Your task to perform on an android device: remove spam from my inbox in the gmail app Image 0: 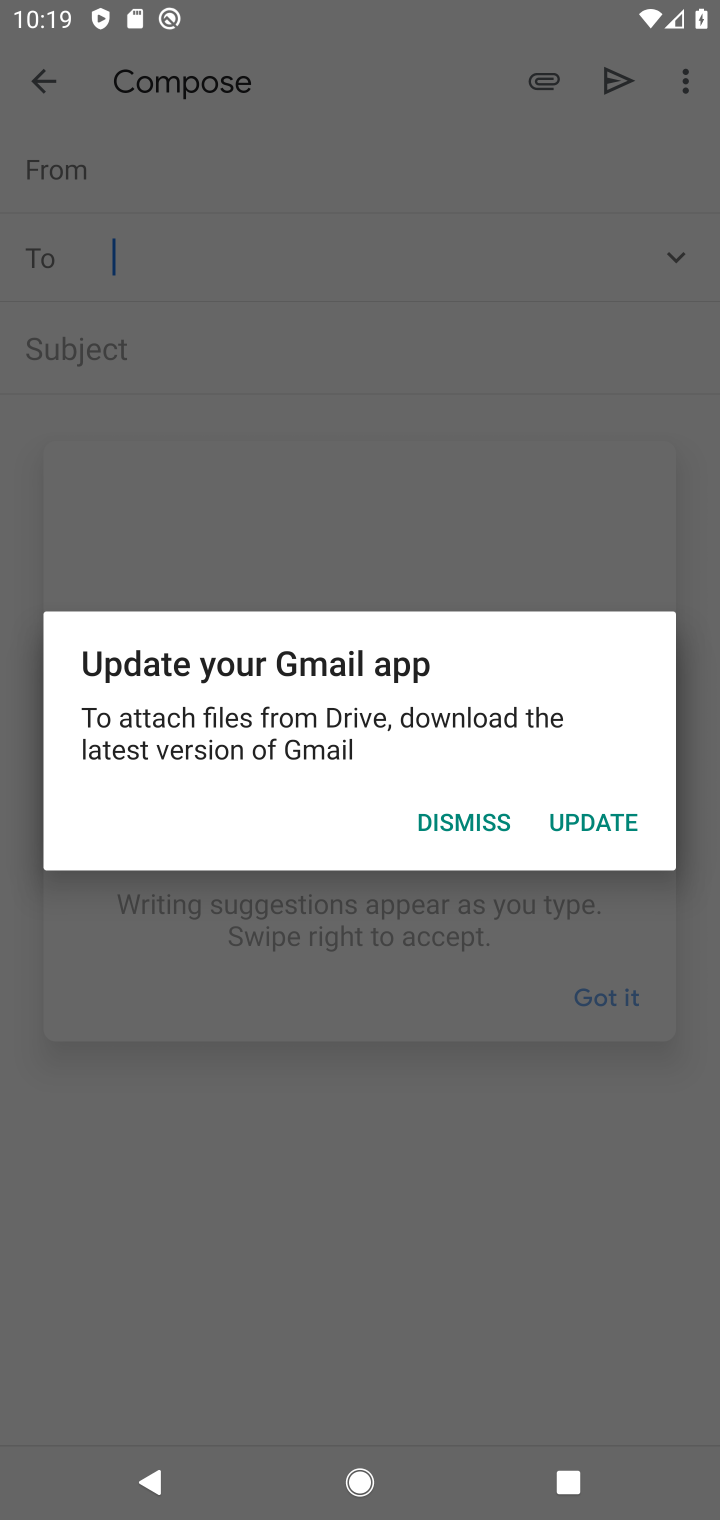
Step 0: click (463, 832)
Your task to perform on an android device: remove spam from my inbox in the gmail app Image 1: 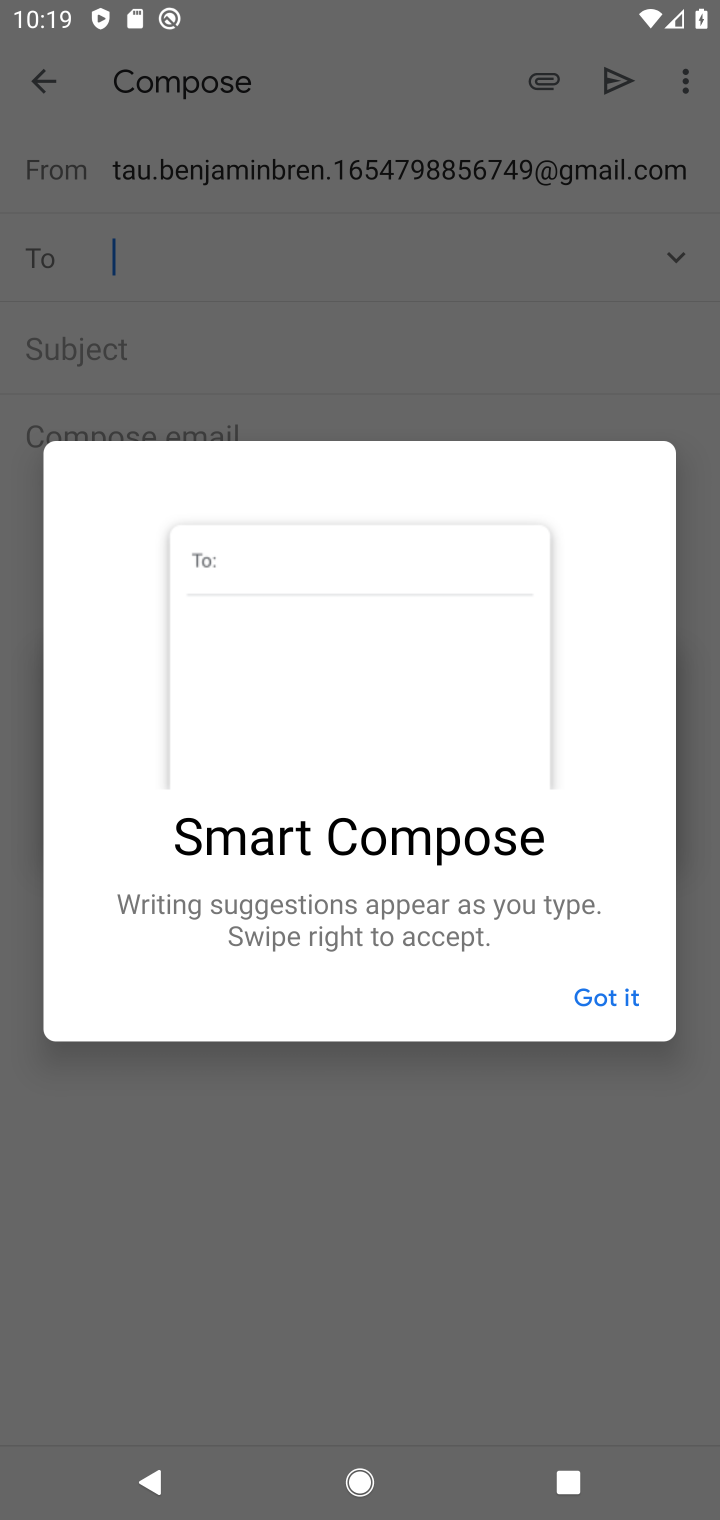
Step 1: press back button
Your task to perform on an android device: remove spam from my inbox in the gmail app Image 2: 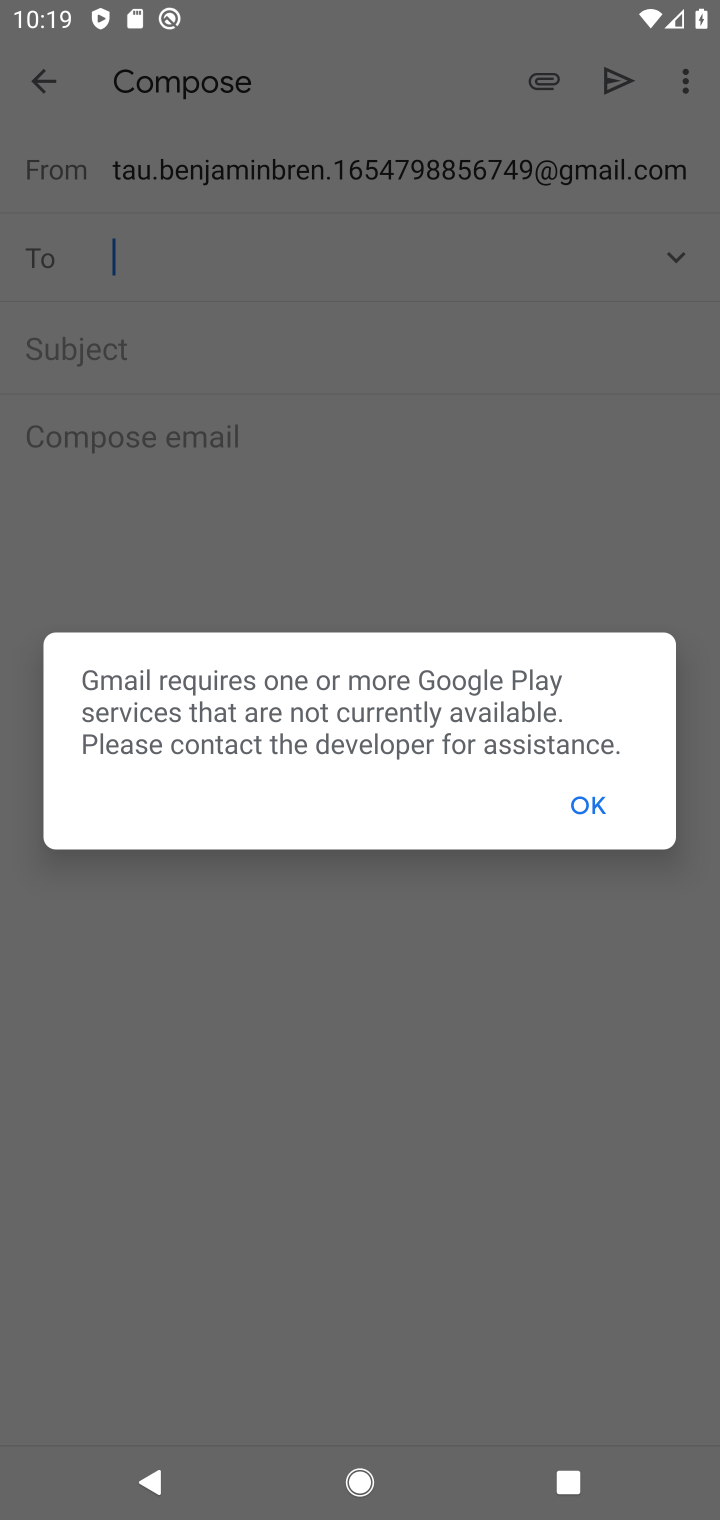
Step 2: press home button
Your task to perform on an android device: remove spam from my inbox in the gmail app Image 3: 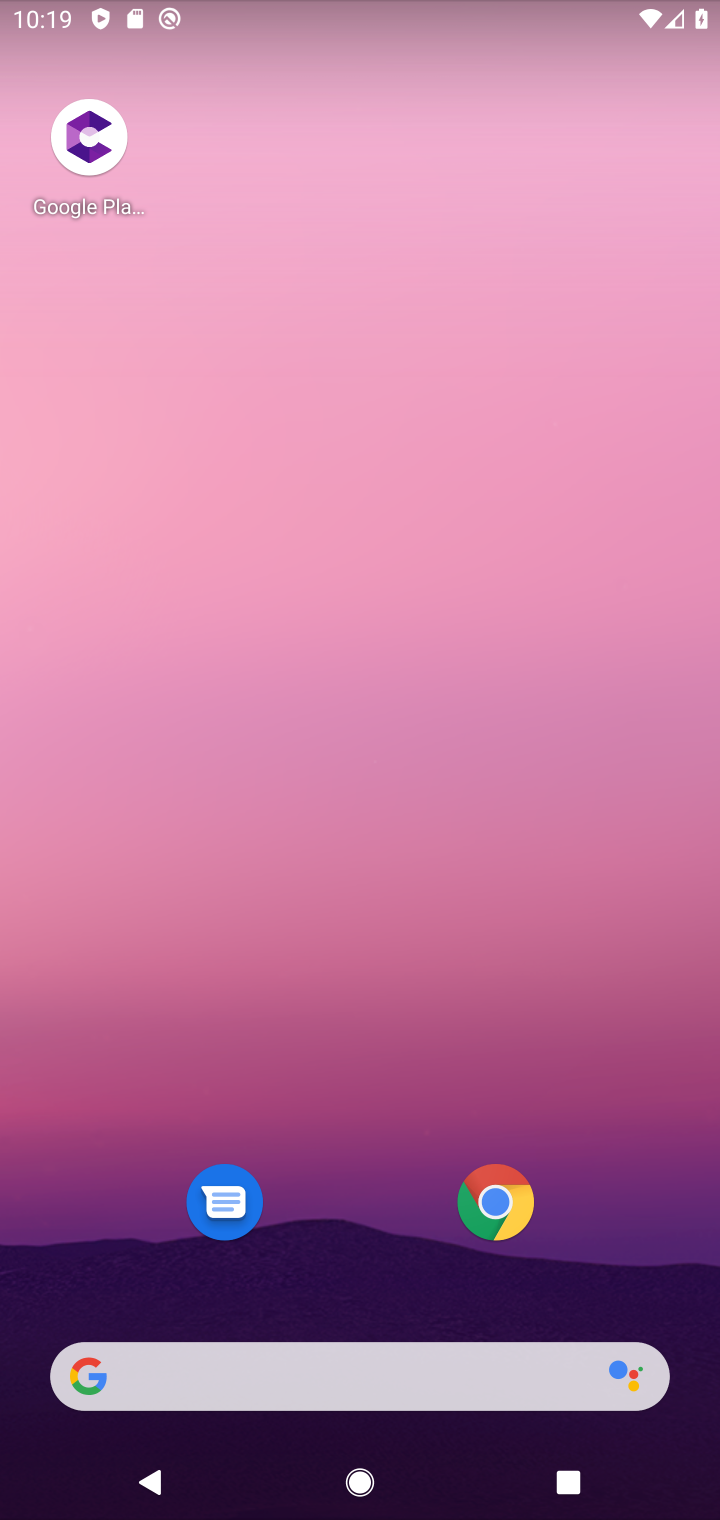
Step 3: drag from (372, 1200) to (566, 91)
Your task to perform on an android device: remove spam from my inbox in the gmail app Image 4: 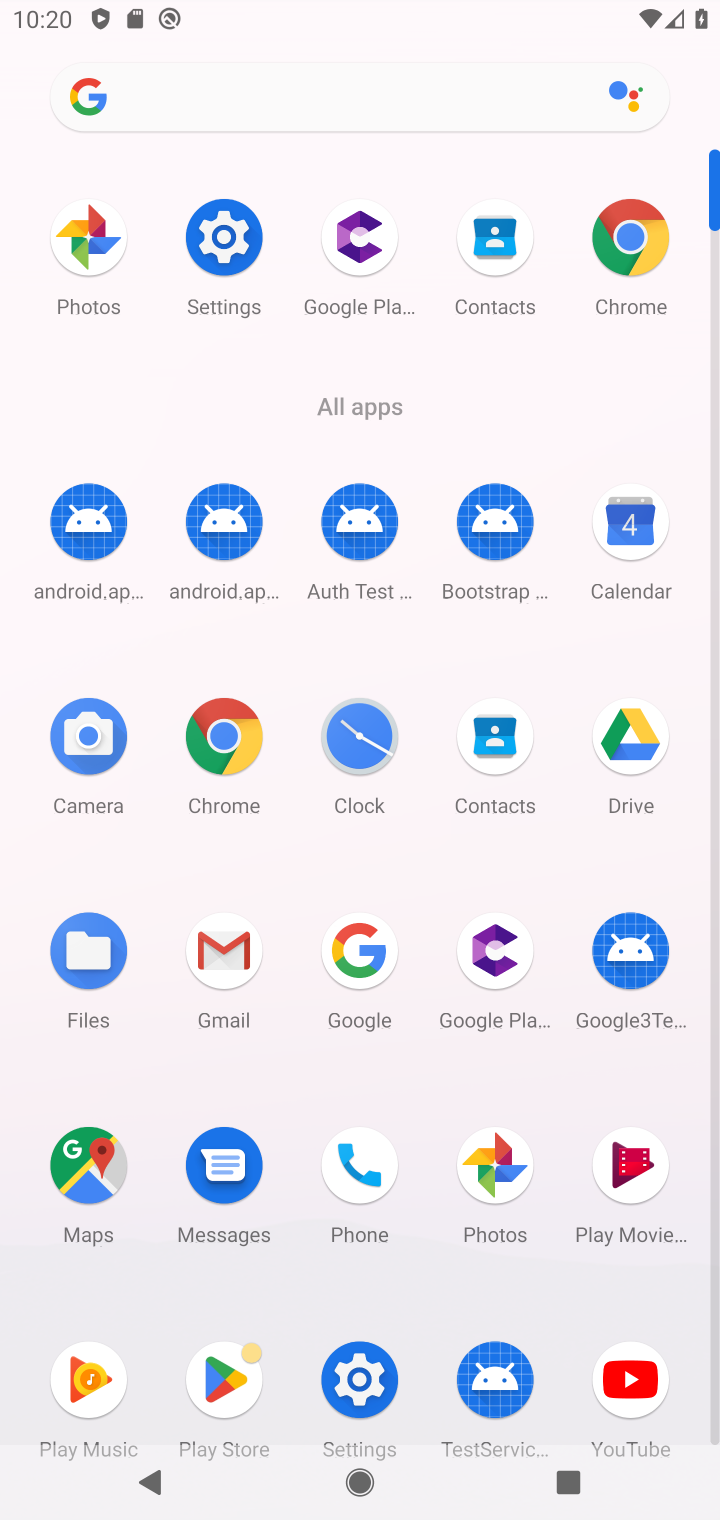
Step 4: click (206, 937)
Your task to perform on an android device: remove spam from my inbox in the gmail app Image 5: 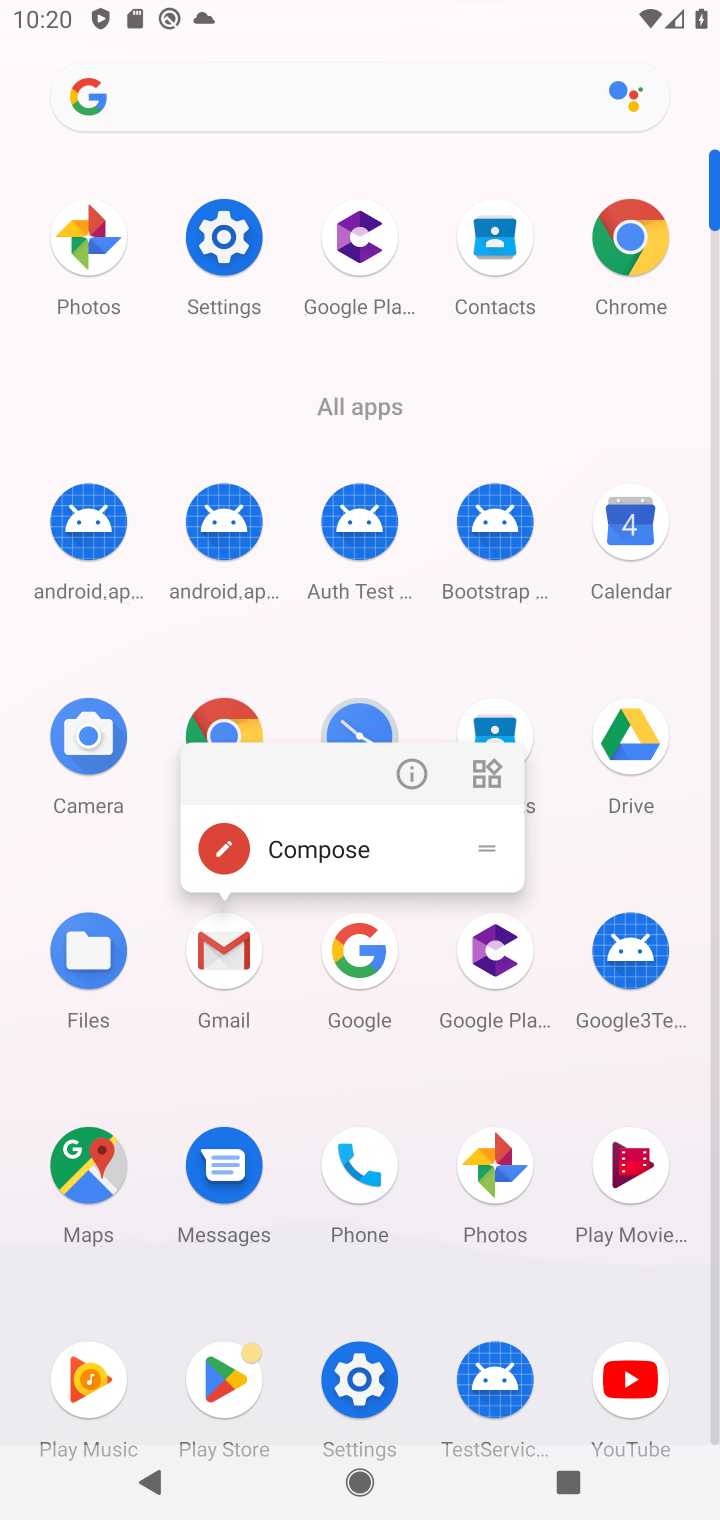
Step 5: click (205, 965)
Your task to perform on an android device: remove spam from my inbox in the gmail app Image 6: 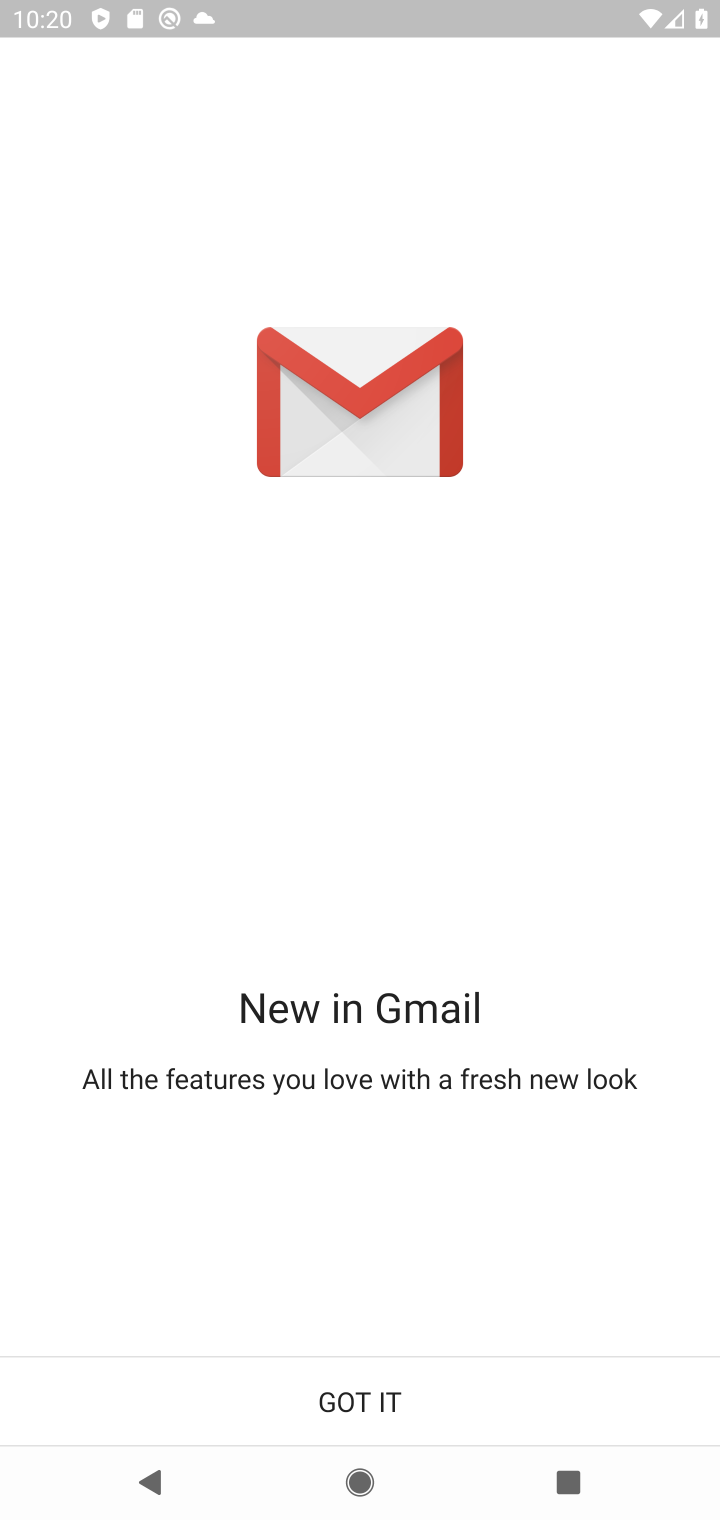
Step 6: click (360, 1394)
Your task to perform on an android device: remove spam from my inbox in the gmail app Image 7: 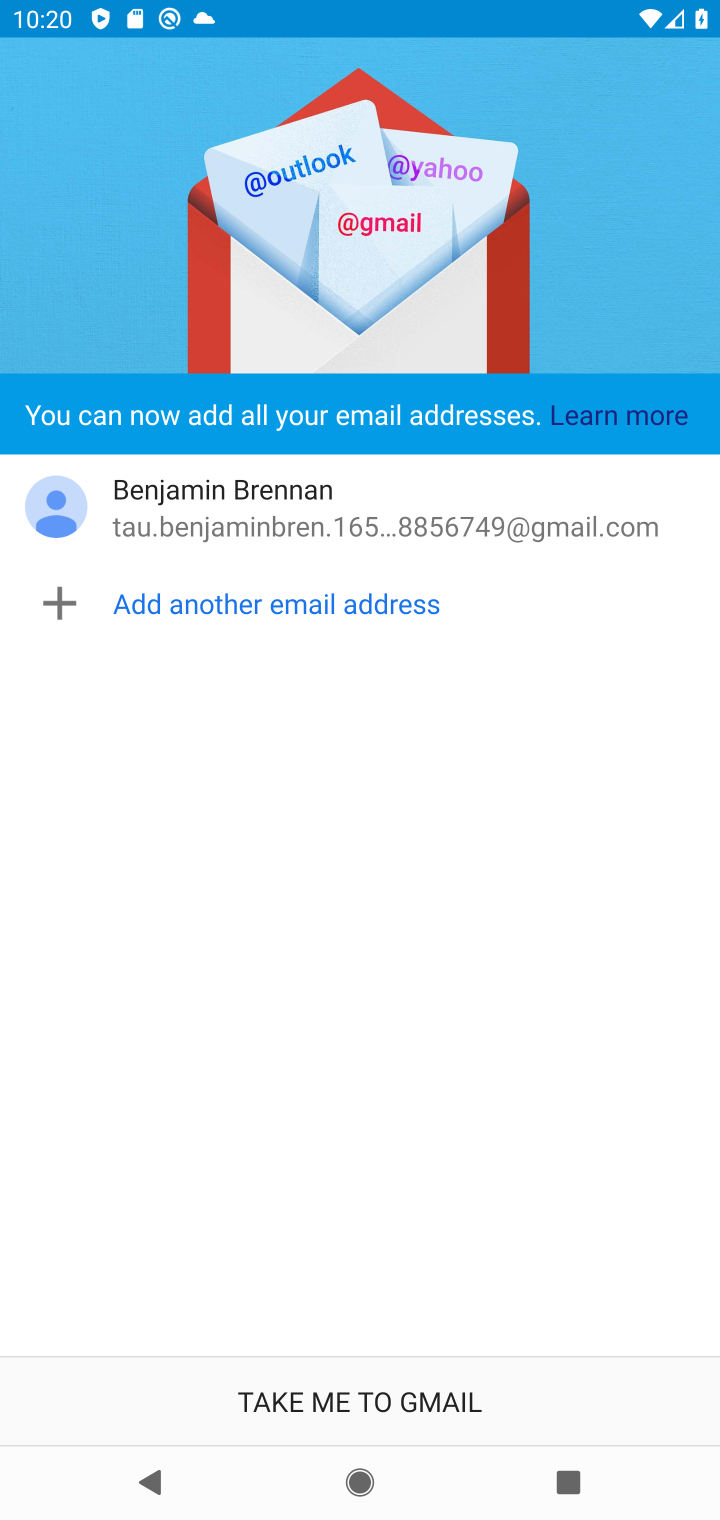
Step 7: click (363, 1394)
Your task to perform on an android device: remove spam from my inbox in the gmail app Image 8: 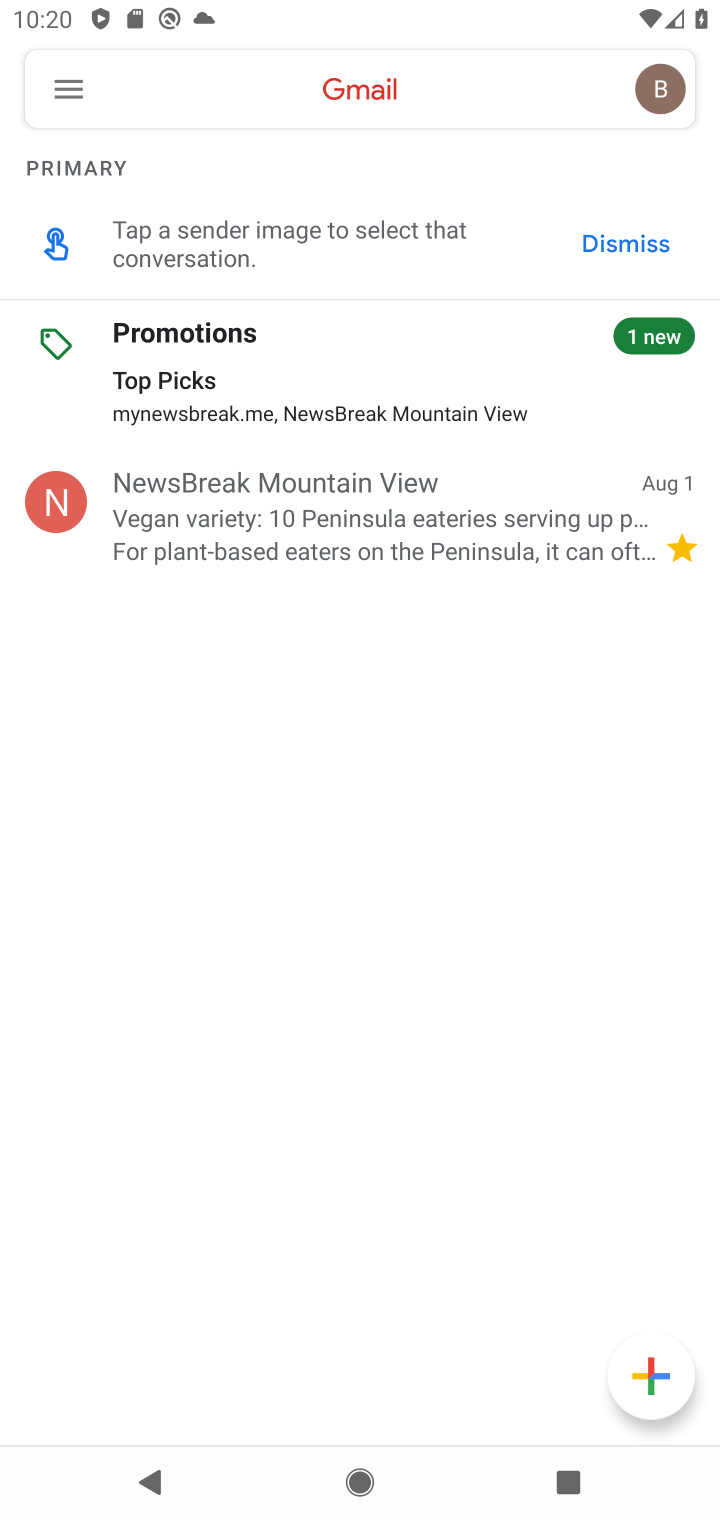
Step 8: click (82, 112)
Your task to perform on an android device: remove spam from my inbox in the gmail app Image 9: 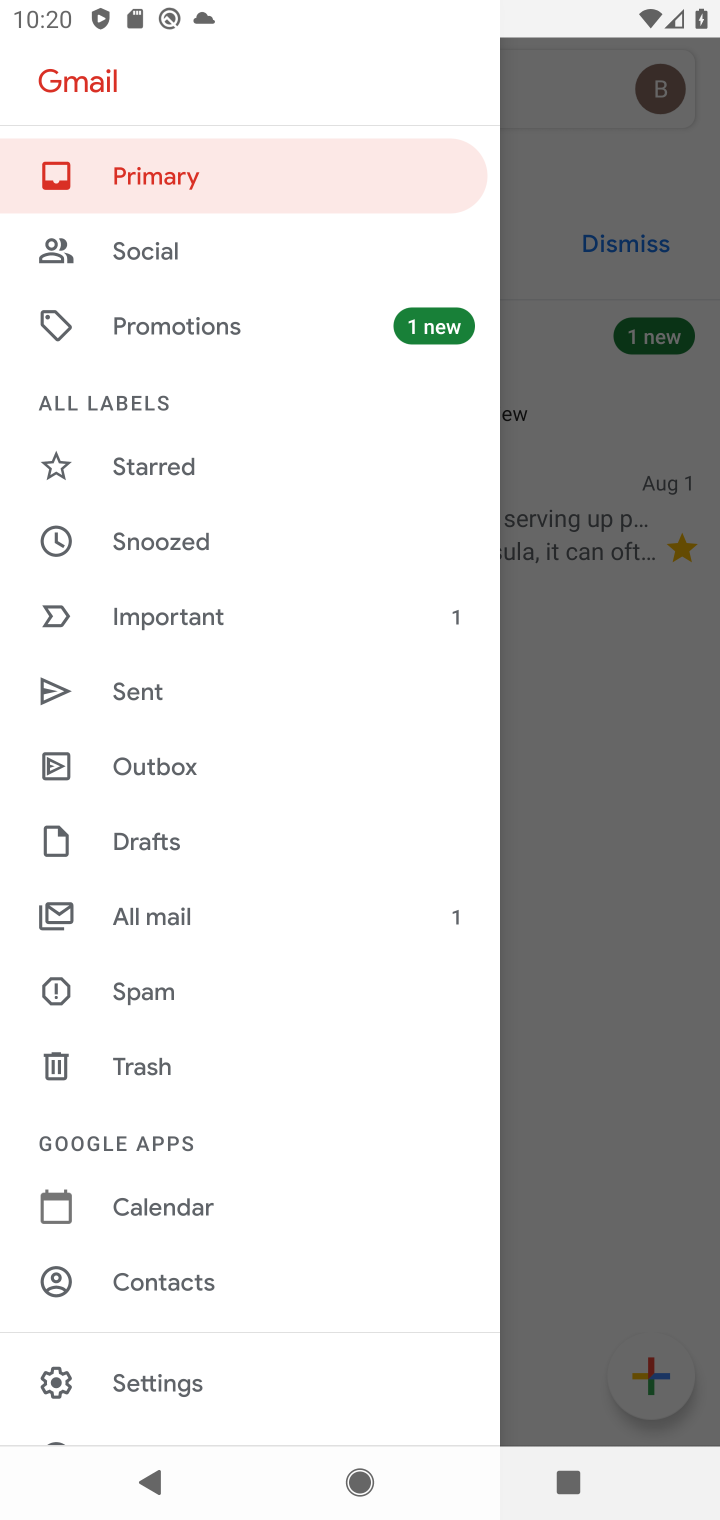
Step 9: click (139, 990)
Your task to perform on an android device: remove spam from my inbox in the gmail app Image 10: 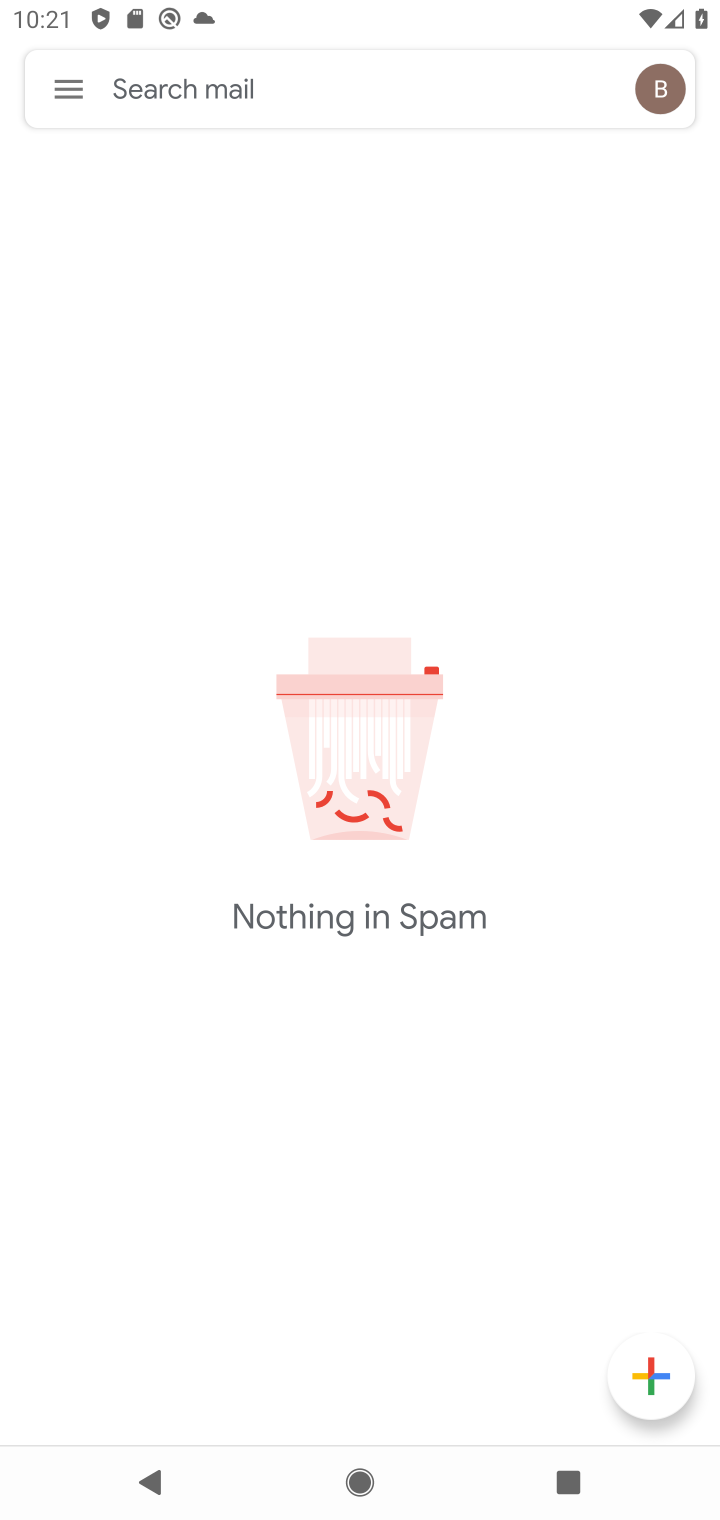
Step 10: task complete